Your task to perform on an android device: Turn off the flashlight Image 0: 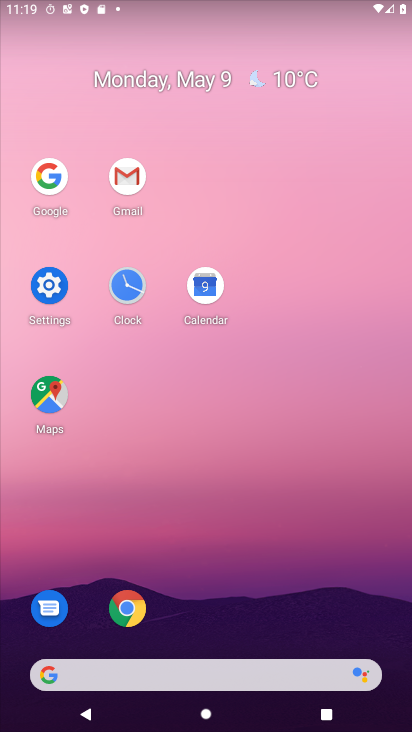
Step 0: drag from (242, 2) to (240, 369)
Your task to perform on an android device: Turn off the flashlight Image 1: 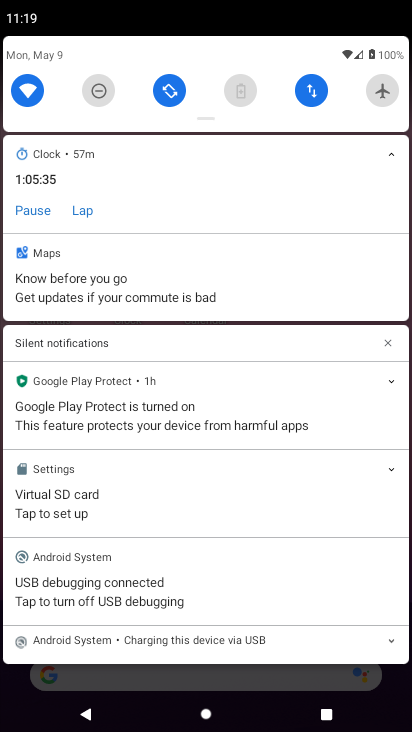
Step 1: task complete